Your task to perform on an android device: Open Google Chrome and click the shortcut for Amazon.com Image 0: 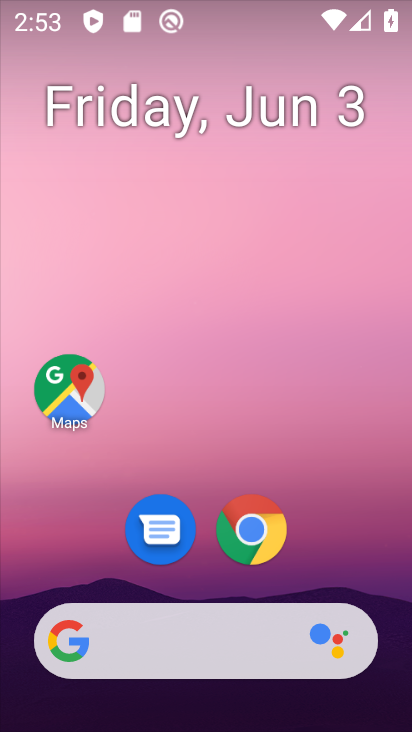
Step 0: click (258, 524)
Your task to perform on an android device: Open Google Chrome and click the shortcut for Amazon.com Image 1: 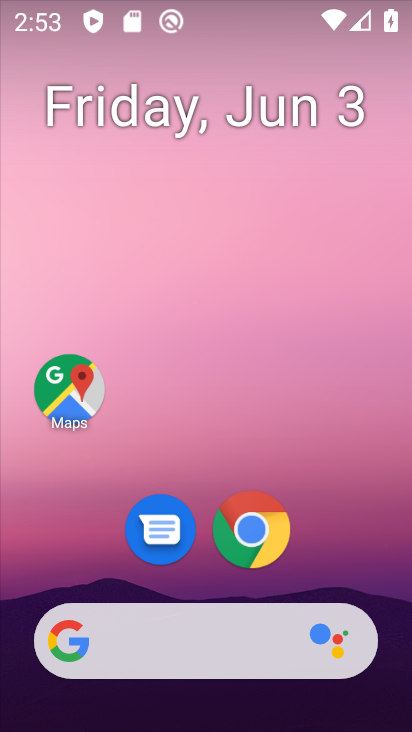
Step 1: click (247, 524)
Your task to perform on an android device: Open Google Chrome and click the shortcut for Amazon.com Image 2: 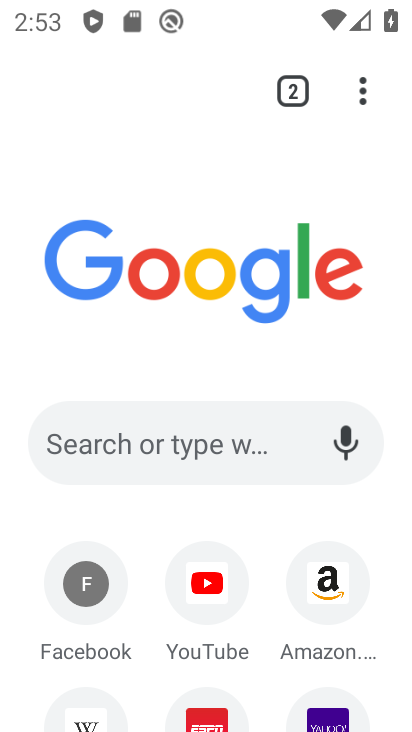
Step 2: click (312, 596)
Your task to perform on an android device: Open Google Chrome and click the shortcut for Amazon.com Image 3: 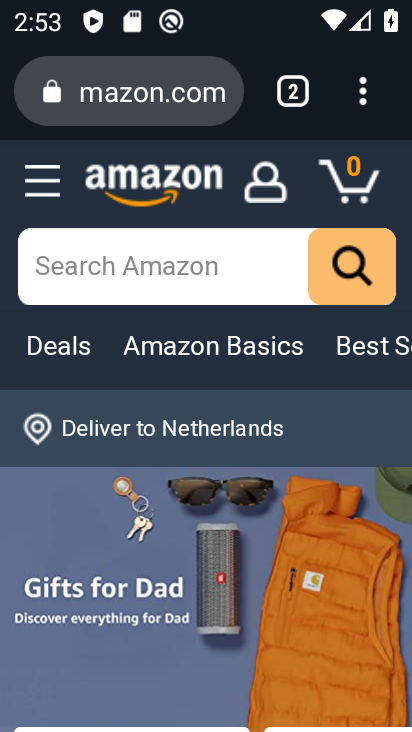
Step 3: task complete